Your task to perform on an android device: Open Google Maps and go to "Timeline" Image 0: 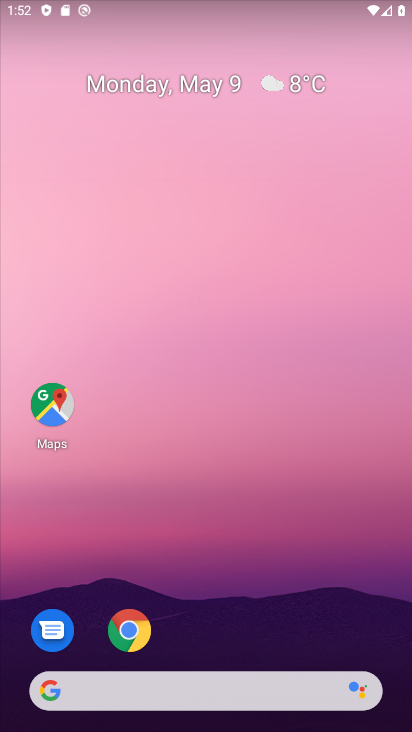
Step 0: click (52, 408)
Your task to perform on an android device: Open Google Maps and go to "Timeline" Image 1: 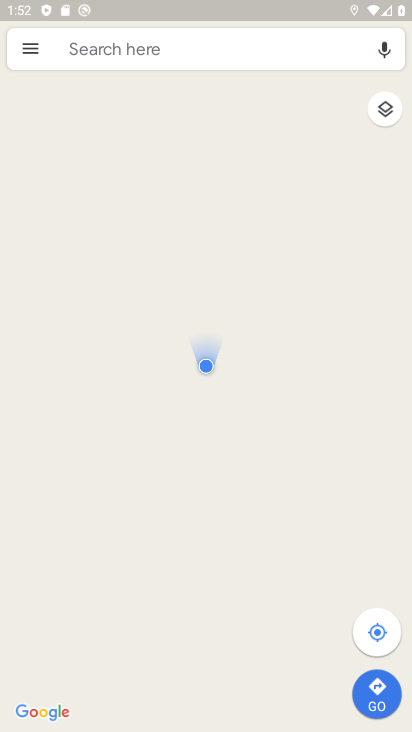
Step 1: click (35, 45)
Your task to perform on an android device: Open Google Maps and go to "Timeline" Image 2: 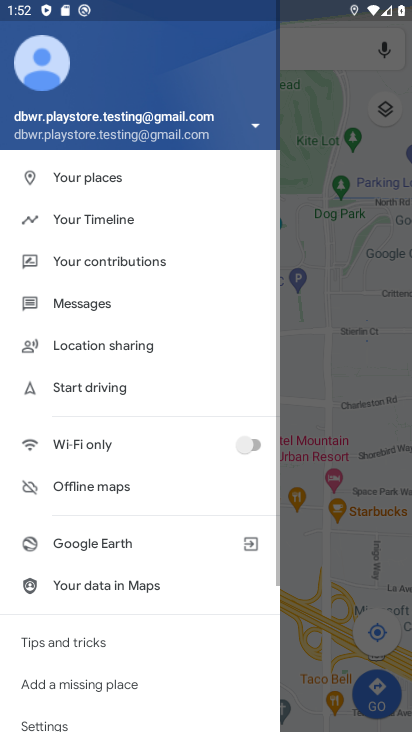
Step 2: click (97, 216)
Your task to perform on an android device: Open Google Maps and go to "Timeline" Image 3: 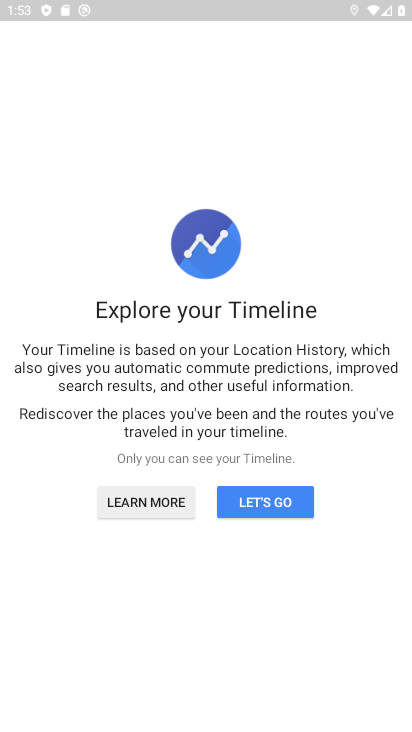
Step 3: click (280, 506)
Your task to perform on an android device: Open Google Maps and go to "Timeline" Image 4: 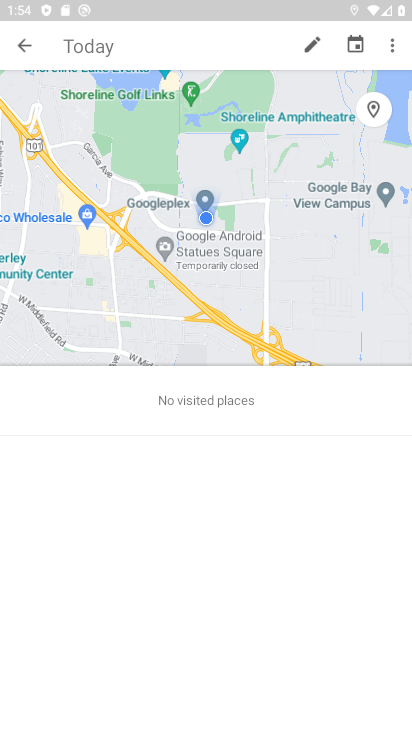
Step 4: task complete